Your task to perform on an android device: open app "Google Docs" Image 0: 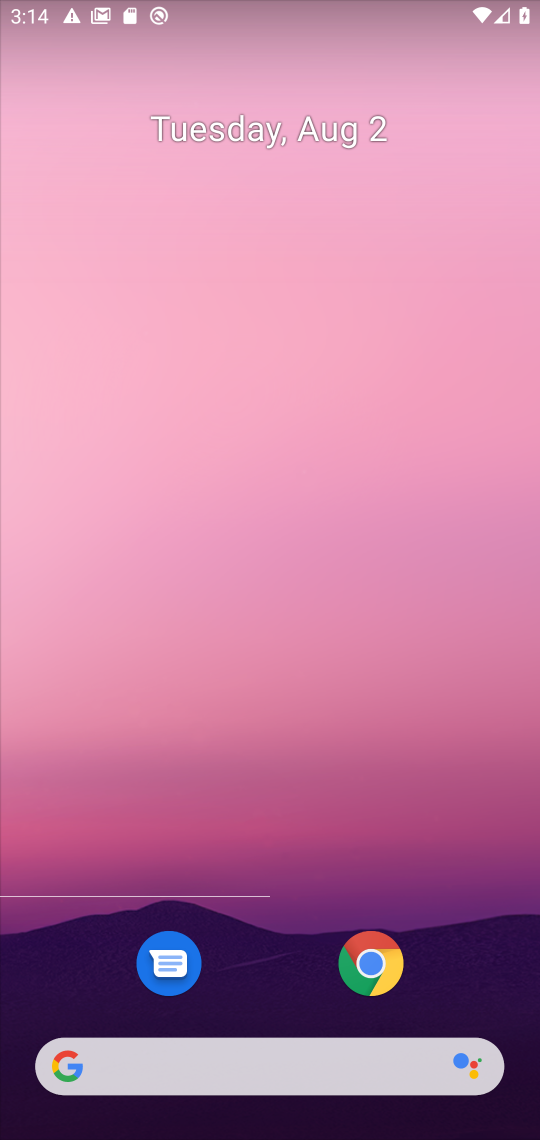
Step 0: press home button
Your task to perform on an android device: open app "Google Docs" Image 1: 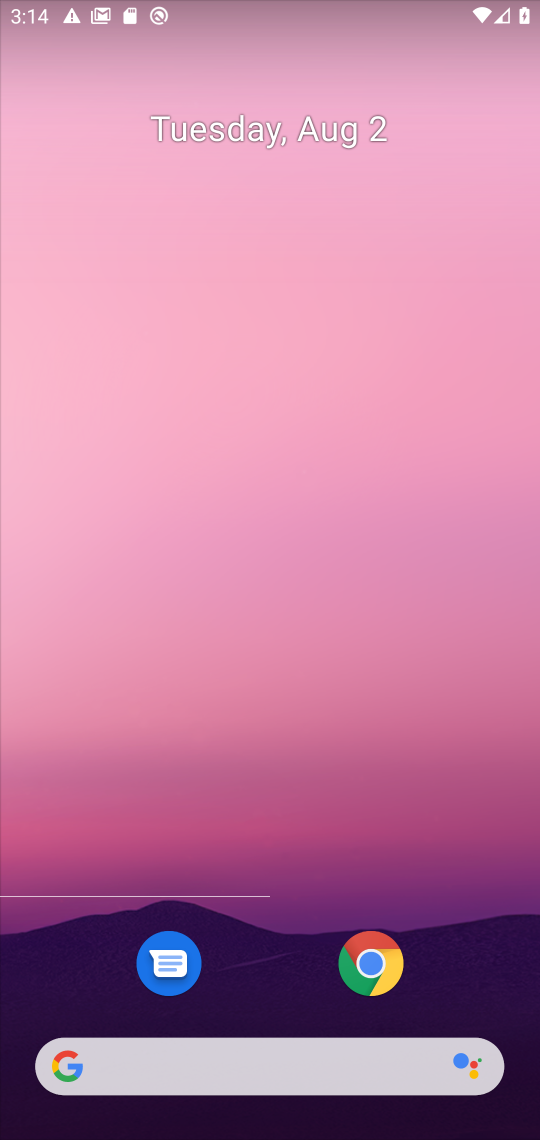
Step 1: click (300, 335)
Your task to perform on an android device: open app "Google Docs" Image 2: 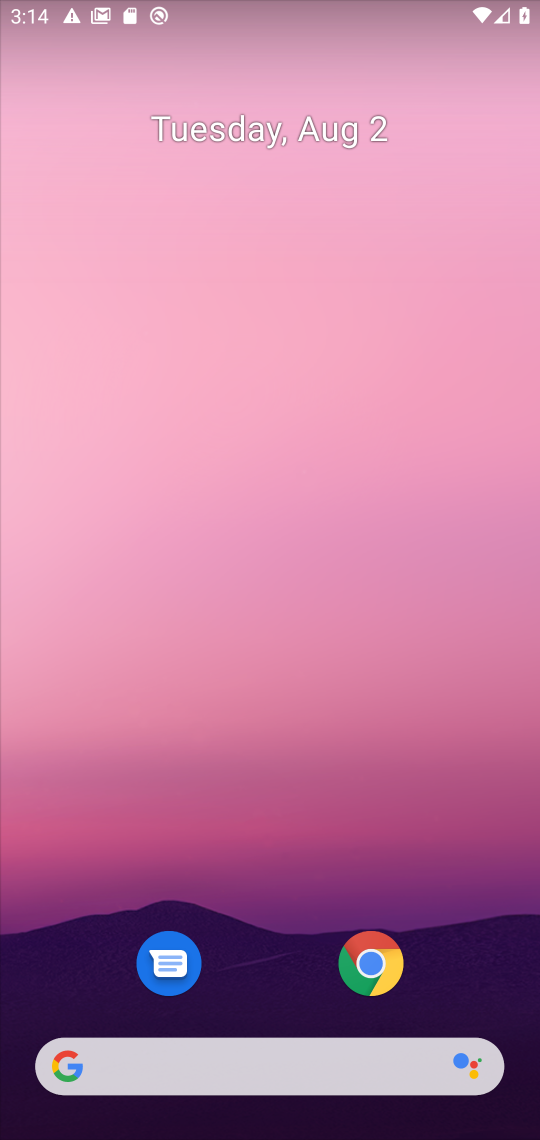
Step 2: drag from (235, 907) to (235, 215)
Your task to perform on an android device: open app "Google Docs" Image 3: 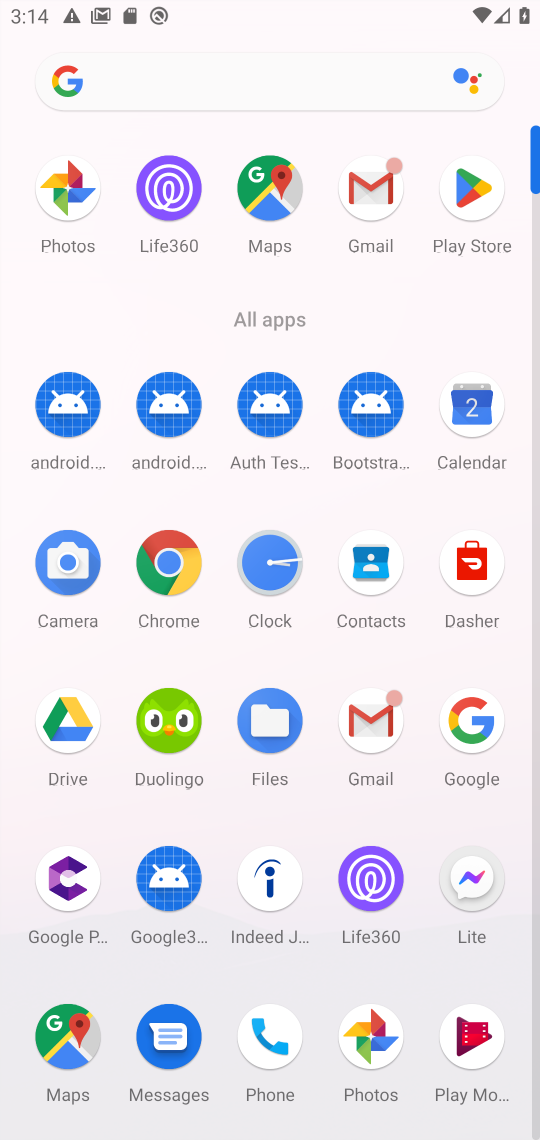
Step 3: click (475, 201)
Your task to perform on an android device: open app "Google Docs" Image 4: 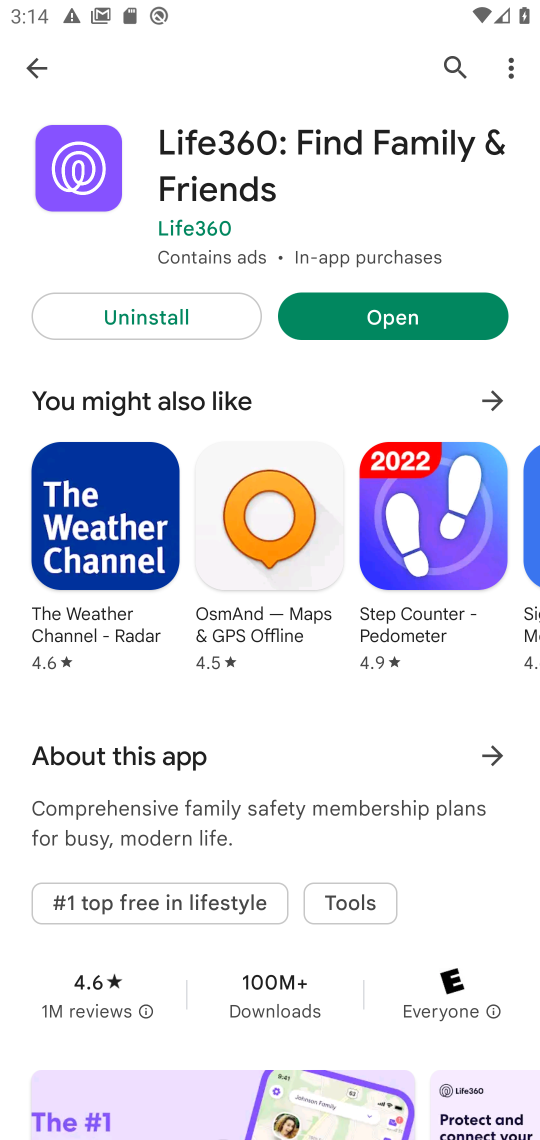
Step 4: click (449, 56)
Your task to perform on an android device: open app "Google Docs" Image 5: 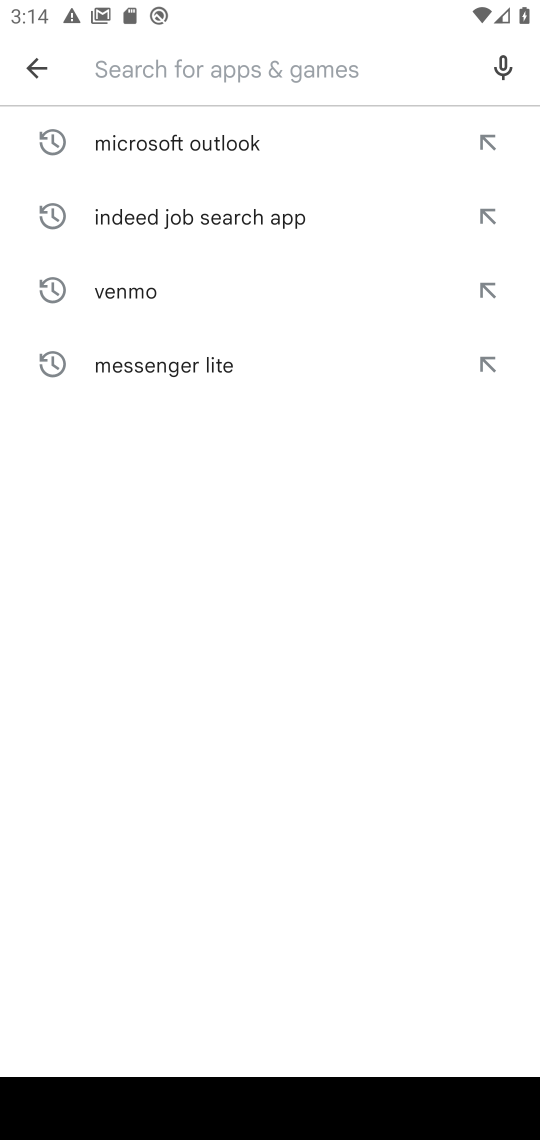
Step 5: type ""Google Docs""
Your task to perform on an android device: open app "Google Docs" Image 6: 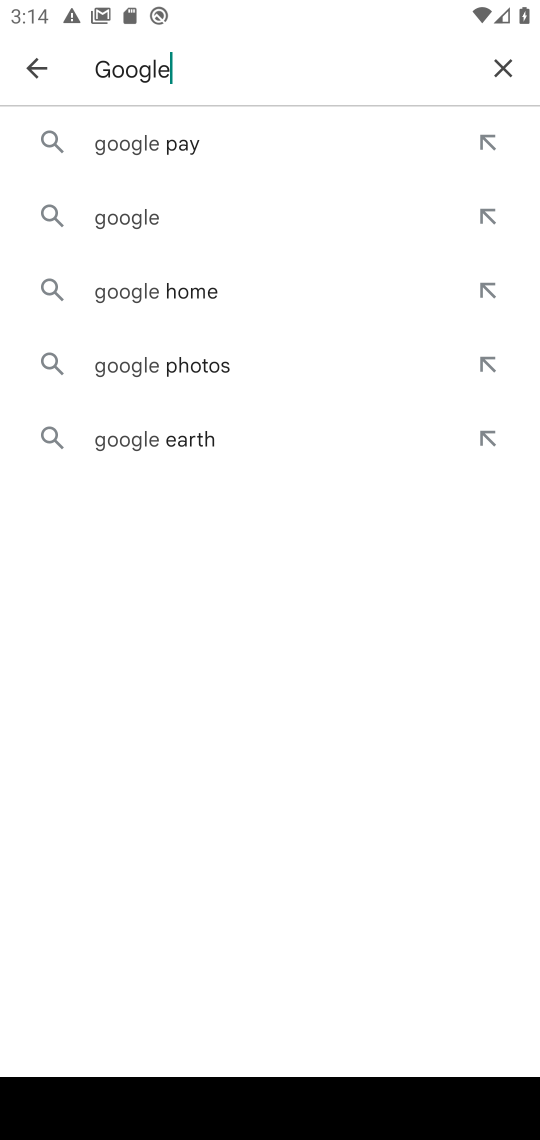
Step 6: click (517, 58)
Your task to perform on an android device: open app "Google Docs" Image 7: 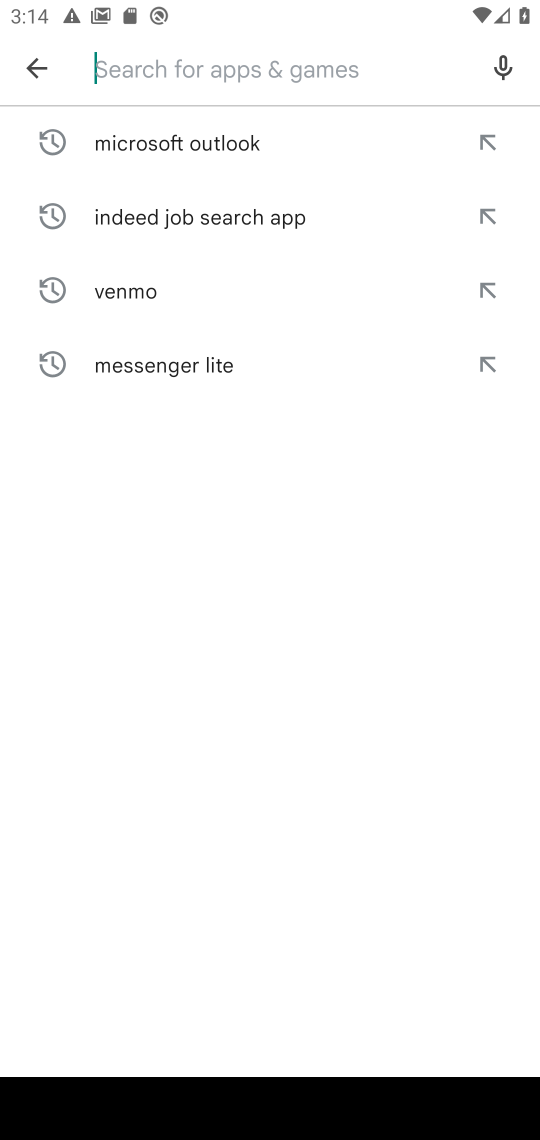
Step 7: type "Google Docs"
Your task to perform on an android device: open app "Google Docs" Image 8: 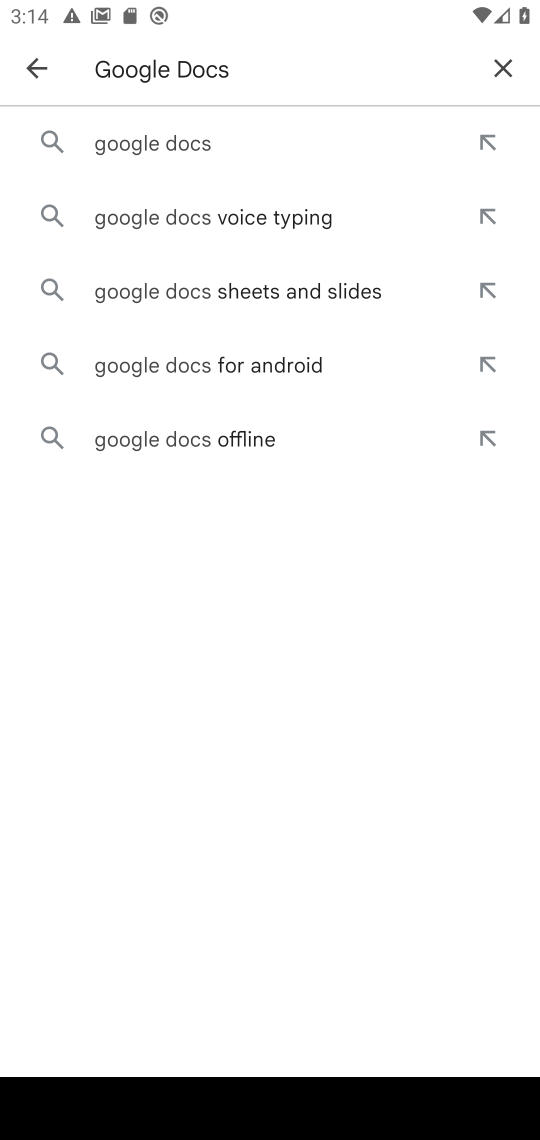
Step 8: click (141, 157)
Your task to perform on an android device: open app "Google Docs" Image 9: 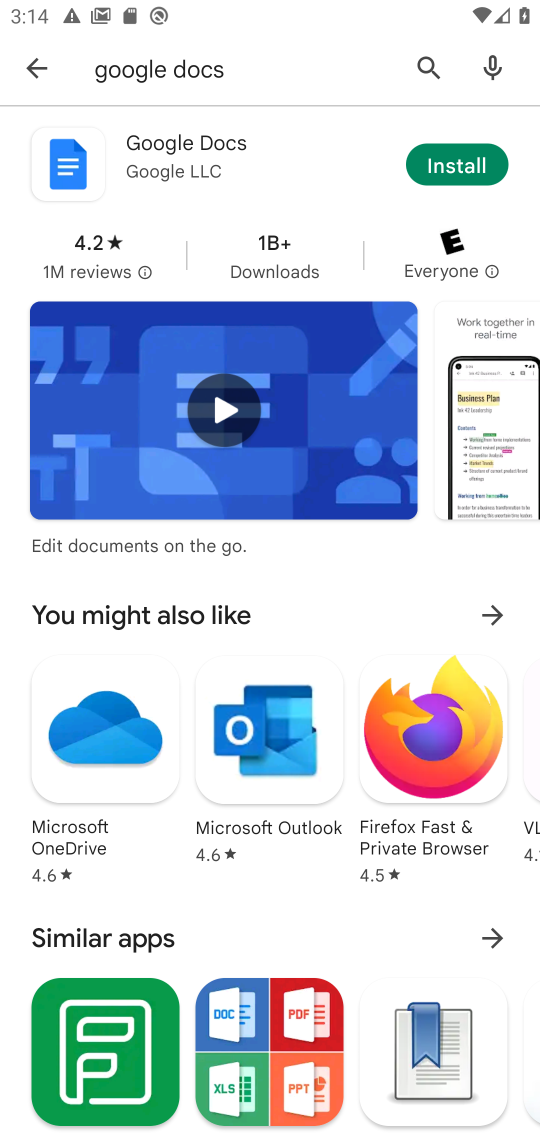
Step 9: click (477, 159)
Your task to perform on an android device: open app "Google Docs" Image 10: 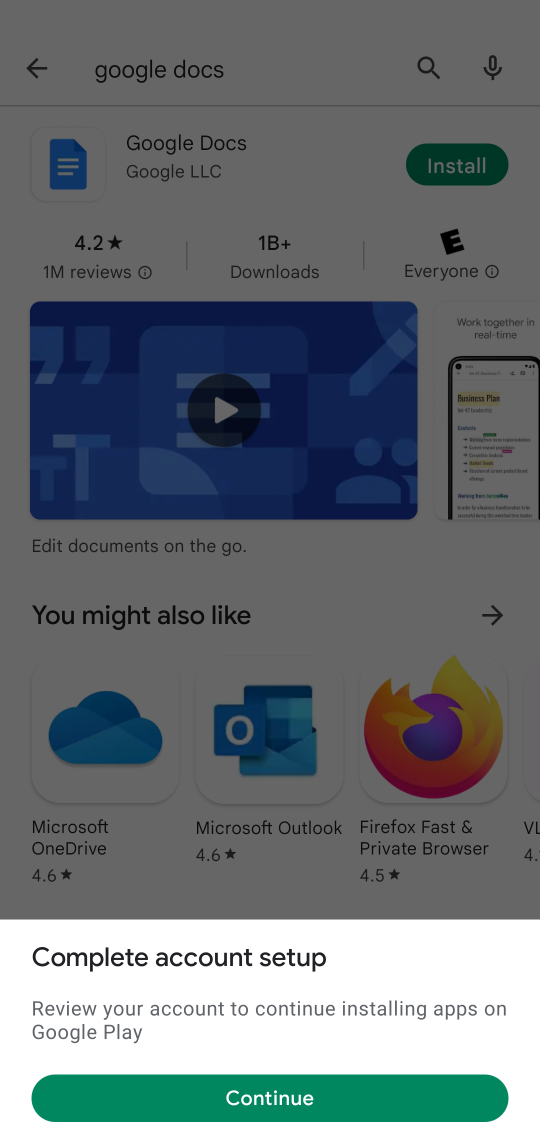
Step 10: click (235, 1095)
Your task to perform on an android device: open app "Google Docs" Image 11: 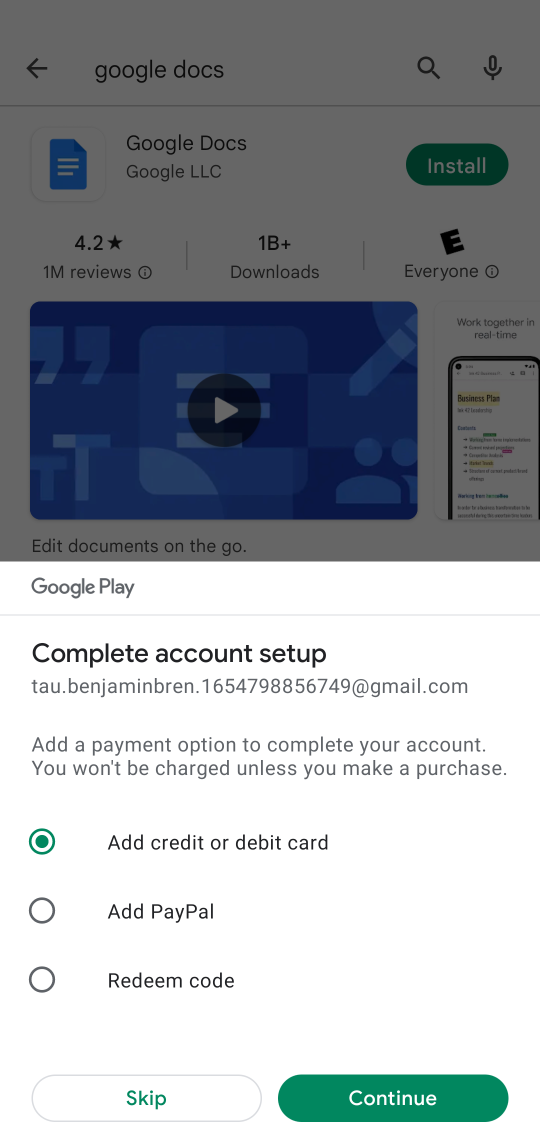
Step 11: click (209, 1093)
Your task to perform on an android device: open app "Google Docs" Image 12: 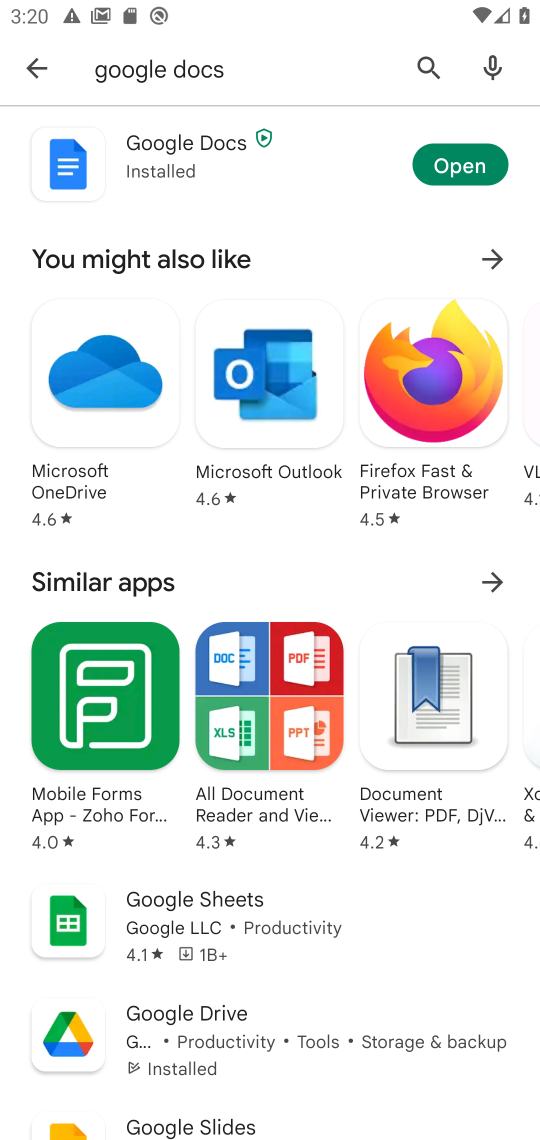
Step 12: click (469, 162)
Your task to perform on an android device: open app "Google Docs" Image 13: 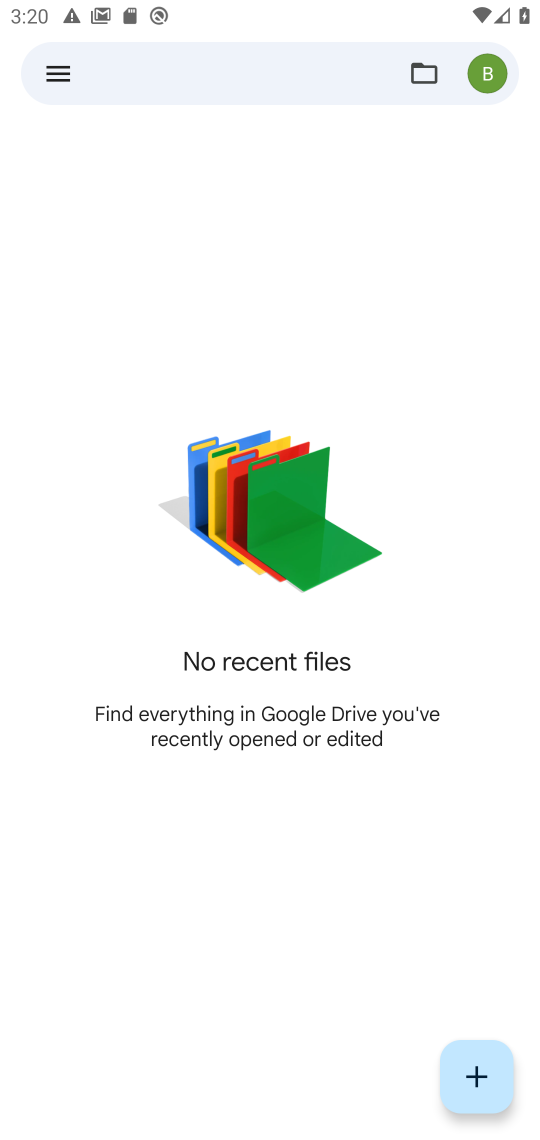
Step 13: task complete